Your task to perform on an android device: turn on translation in the chrome app Image 0: 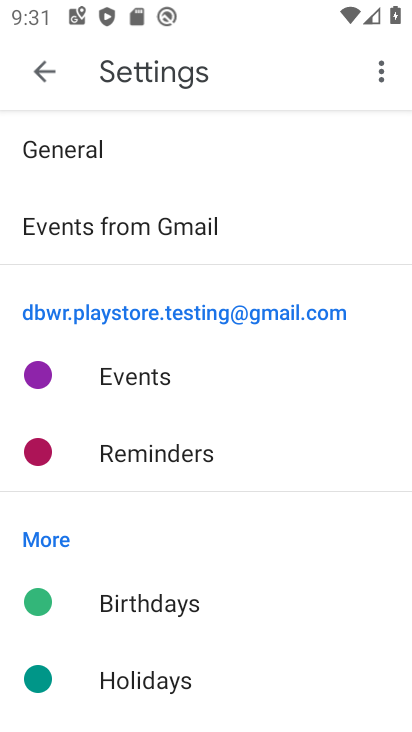
Step 0: press home button
Your task to perform on an android device: turn on translation in the chrome app Image 1: 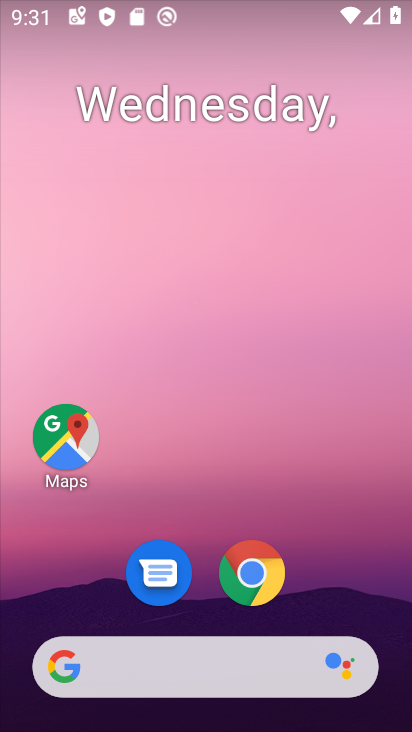
Step 1: click (257, 566)
Your task to perform on an android device: turn on translation in the chrome app Image 2: 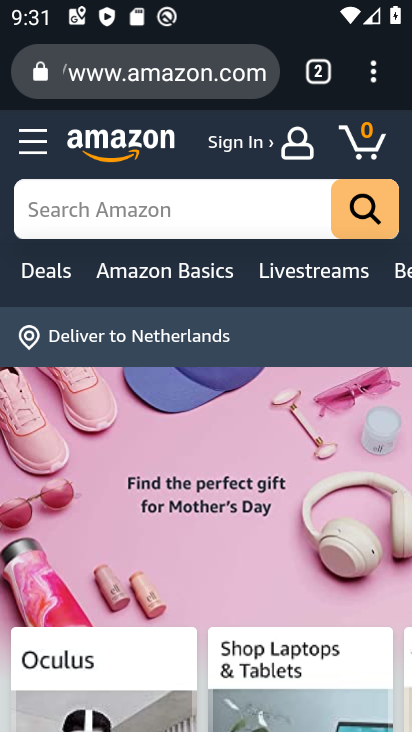
Step 2: click (371, 70)
Your task to perform on an android device: turn on translation in the chrome app Image 3: 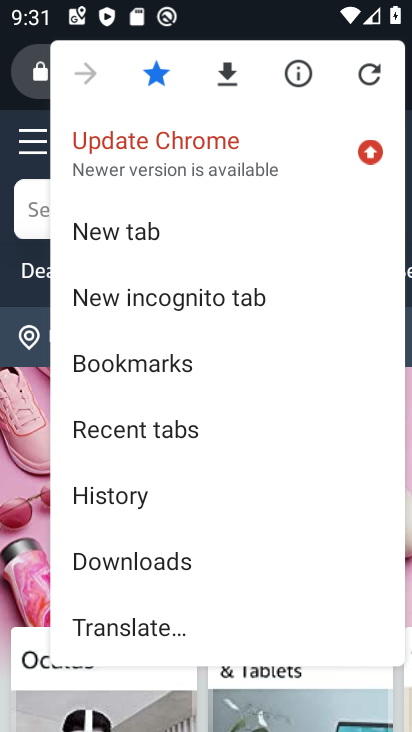
Step 3: drag from (330, 411) to (326, 200)
Your task to perform on an android device: turn on translation in the chrome app Image 4: 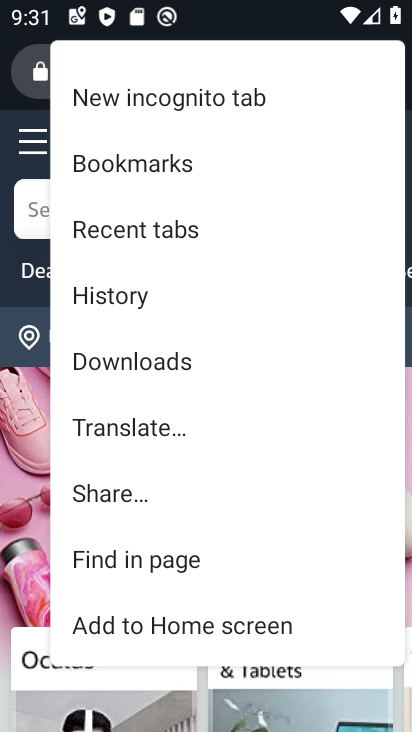
Step 4: drag from (291, 567) to (304, 279)
Your task to perform on an android device: turn on translation in the chrome app Image 5: 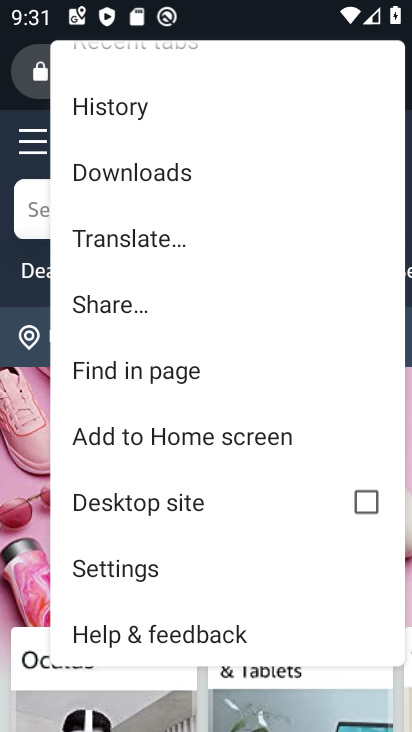
Step 5: click (120, 573)
Your task to perform on an android device: turn on translation in the chrome app Image 6: 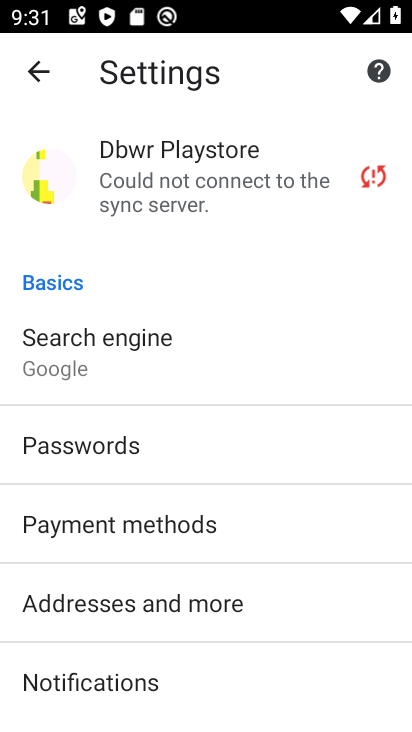
Step 6: drag from (278, 649) to (307, 313)
Your task to perform on an android device: turn on translation in the chrome app Image 7: 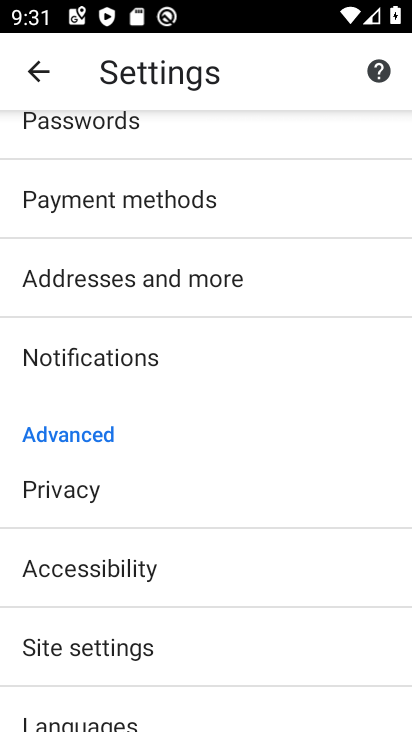
Step 7: click (171, 715)
Your task to perform on an android device: turn on translation in the chrome app Image 8: 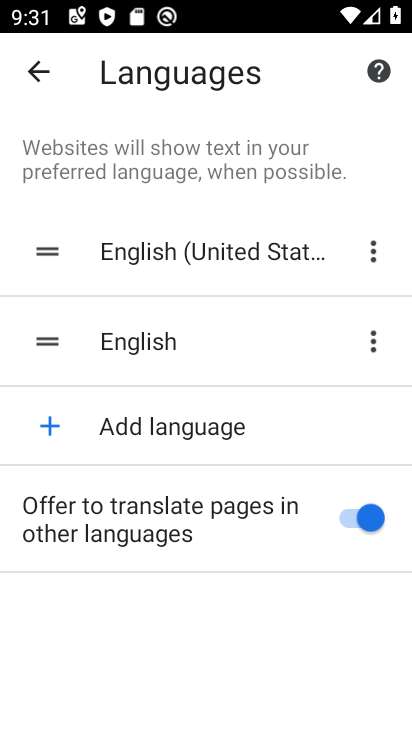
Step 8: task complete